Your task to perform on an android device: Go to CNN.com Image 0: 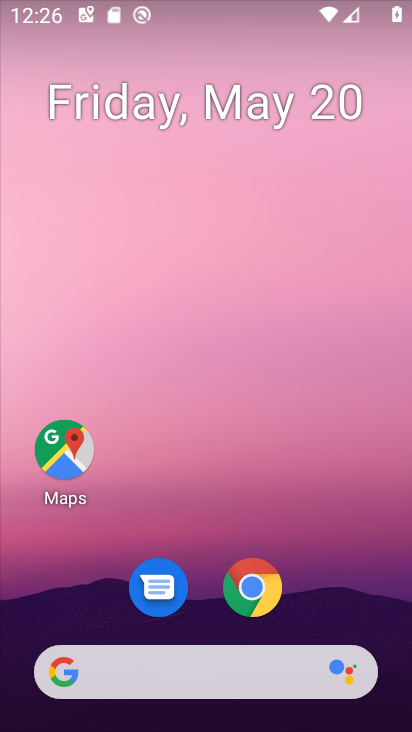
Step 0: click (352, 247)
Your task to perform on an android device: Go to CNN.com Image 1: 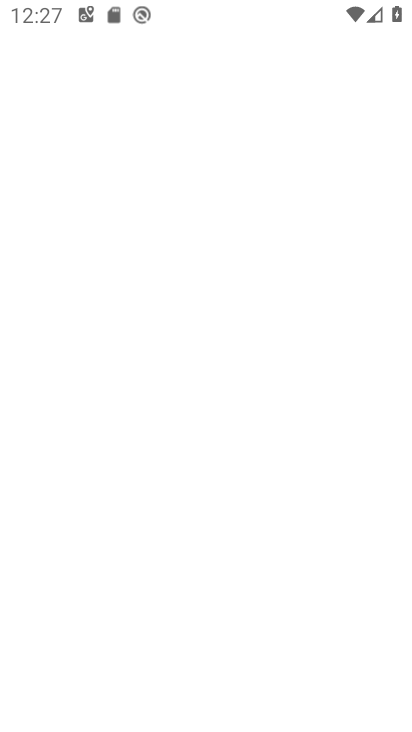
Step 1: press home button
Your task to perform on an android device: Go to CNN.com Image 2: 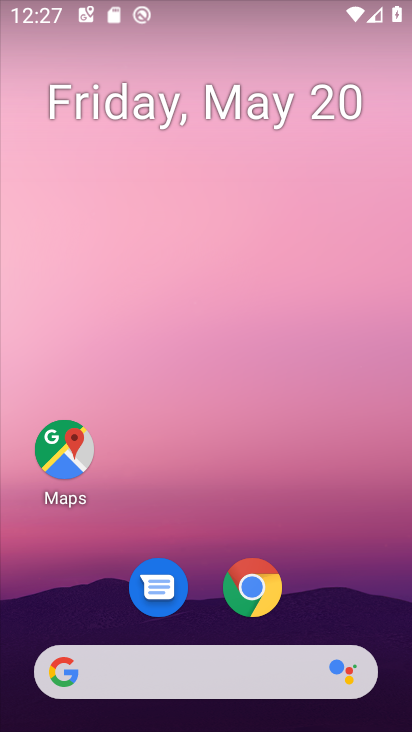
Step 2: drag from (365, 588) to (346, 218)
Your task to perform on an android device: Go to CNN.com Image 3: 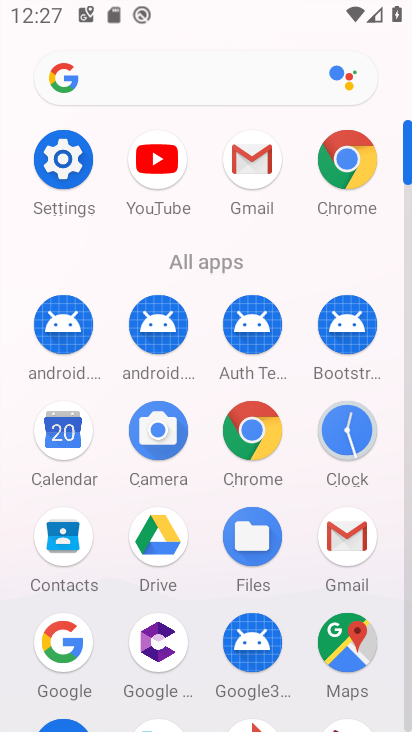
Step 3: click (265, 448)
Your task to perform on an android device: Go to CNN.com Image 4: 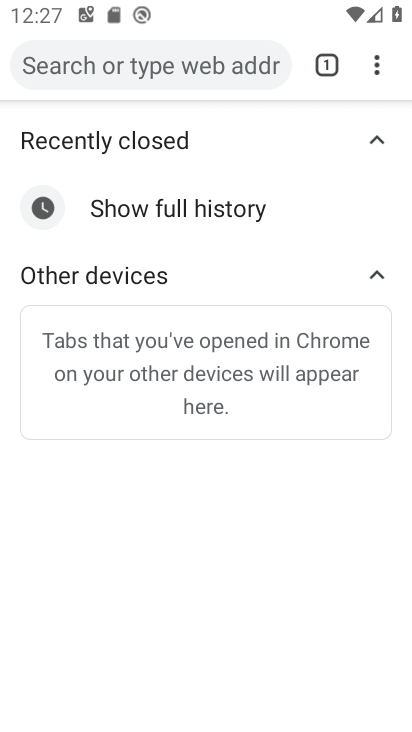
Step 4: press home button
Your task to perform on an android device: Go to CNN.com Image 5: 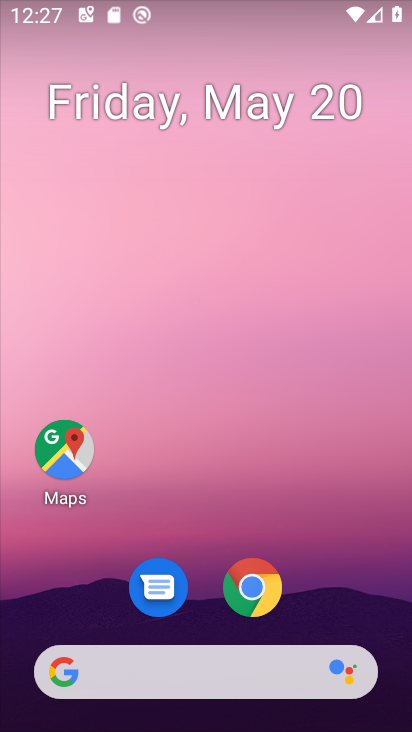
Step 5: drag from (340, 563) to (347, 162)
Your task to perform on an android device: Go to CNN.com Image 6: 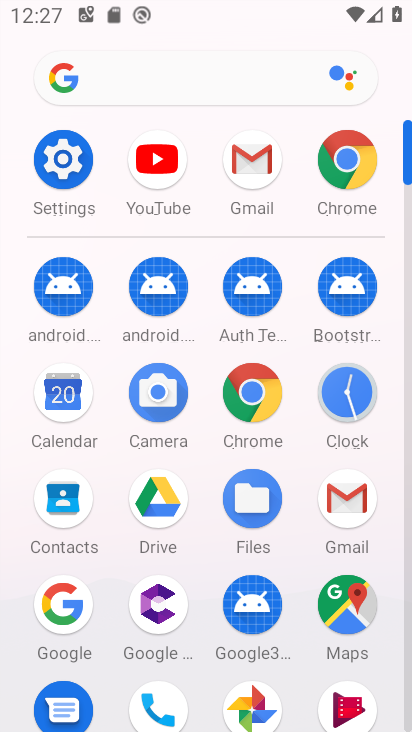
Step 6: click (249, 396)
Your task to perform on an android device: Go to CNN.com Image 7: 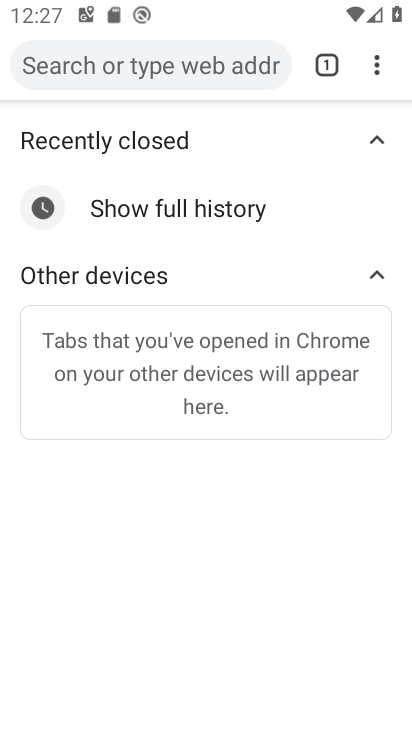
Step 7: click (241, 78)
Your task to perform on an android device: Go to CNN.com Image 8: 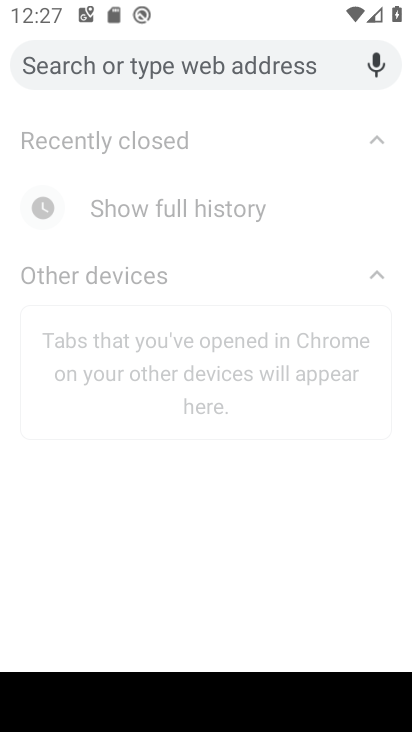
Step 8: type "cnn.com"
Your task to perform on an android device: Go to CNN.com Image 9: 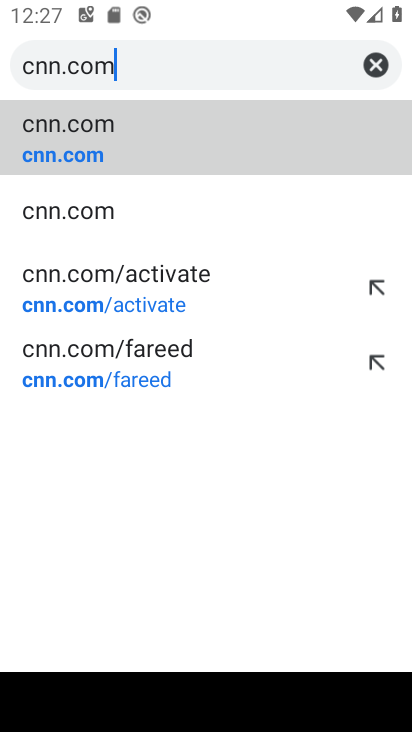
Step 9: click (168, 141)
Your task to perform on an android device: Go to CNN.com Image 10: 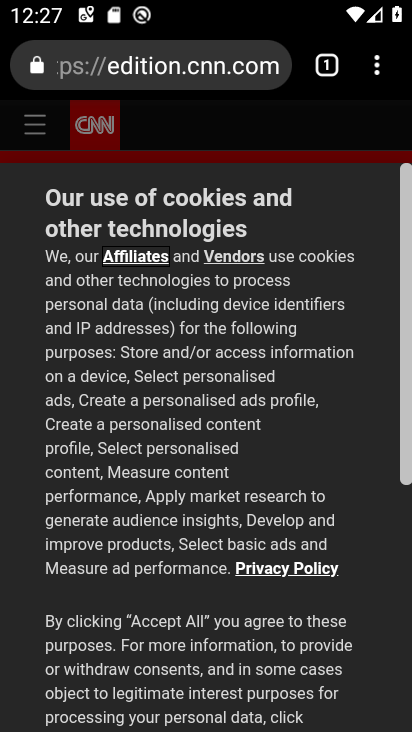
Step 10: task complete